Your task to perform on an android device: Show me popular games on the Play Store Image 0: 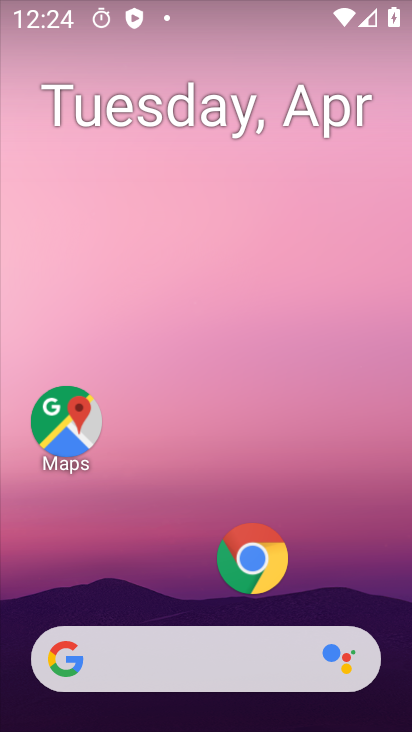
Step 0: drag from (192, 601) to (232, 119)
Your task to perform on an android device: Show me popular games on the Play Store Image 1: 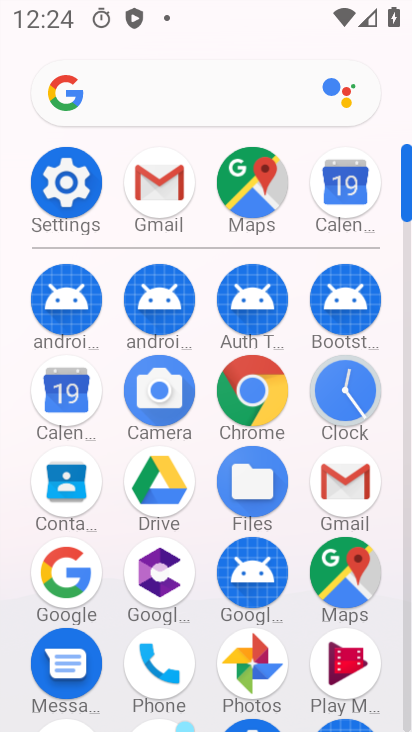
Step 1: drag from (192, 644) to (212, 301)
Your task to perform on an android device: Show me popular games on the Play Store Image 2: 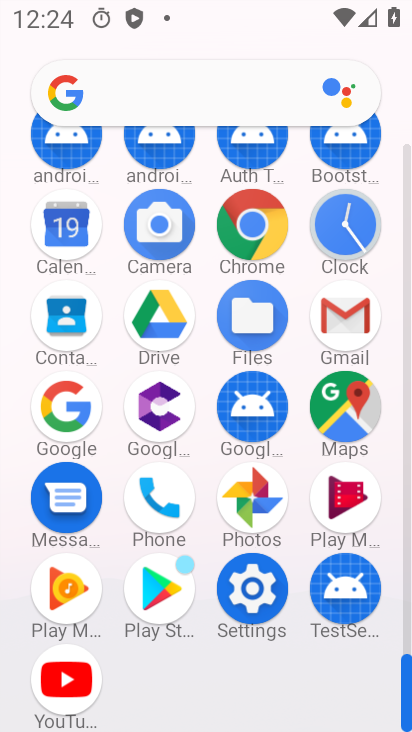
Step 2: click (170, 596)
Your task to perform on an android device: Show me popular games on the Play Store Image 3: 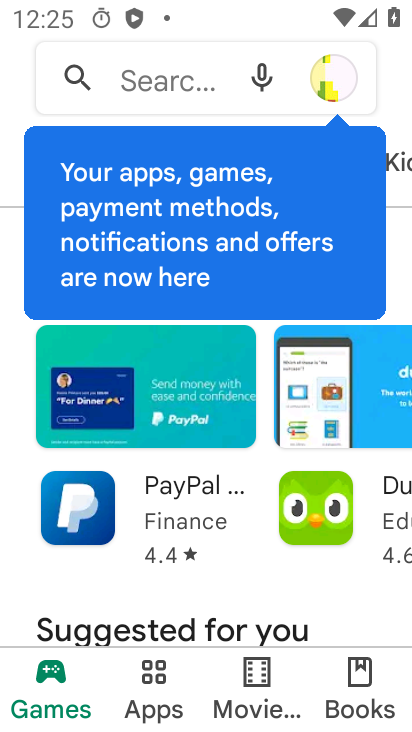
Step 3: drag from (234, 605) to (238, 347)
Your task to perform on an android device: Show me popular games on the Play Store Image 4: 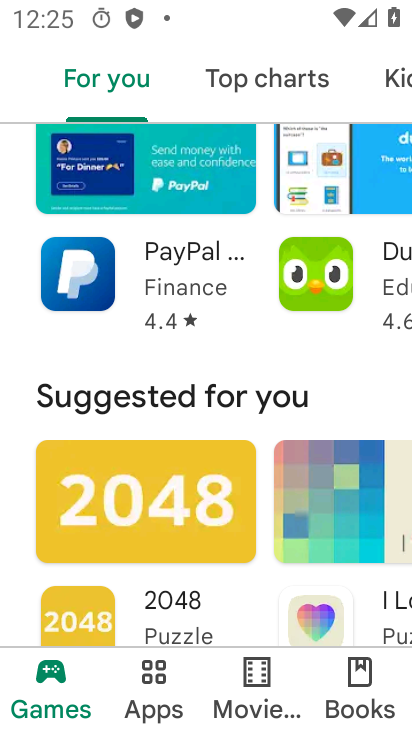
Step 4: drag from (209, 598) to (227, 280)
Your task to perform on an android device: Show me popular games on the Play Store Image 5: 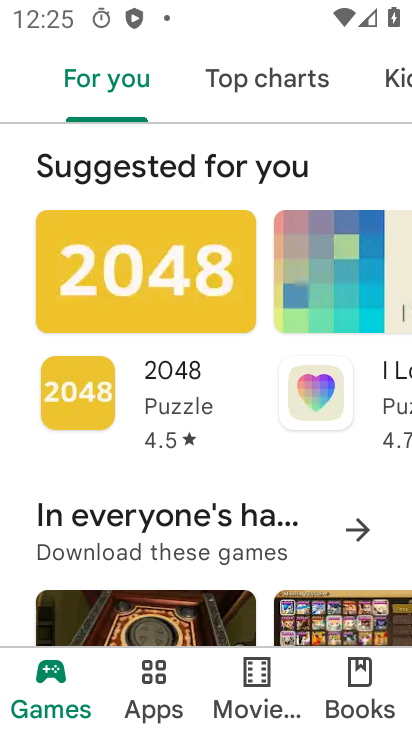
Step 5: drag from (236, 573) to (242, 306)
Your task to perform on an android device: Show me popular games on the Play Store Image 6: 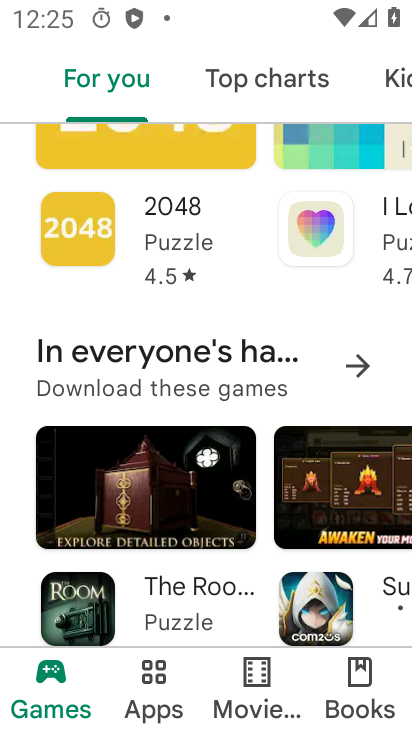
Step 6: drag from (244, 623) to (260, 339)
Your task to perform on an android device: Show me popular games on the Play Store Image 7: 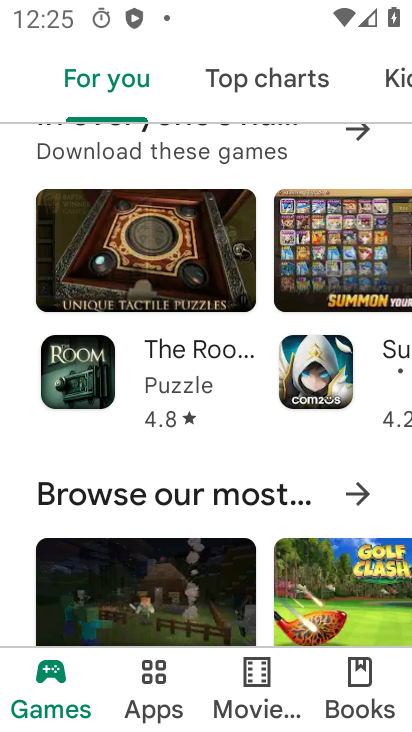
Step 7: drag from (180, 606) to (203, 333)
Your task to perform on an android device: Show me popular games on the Play Store Image 8: 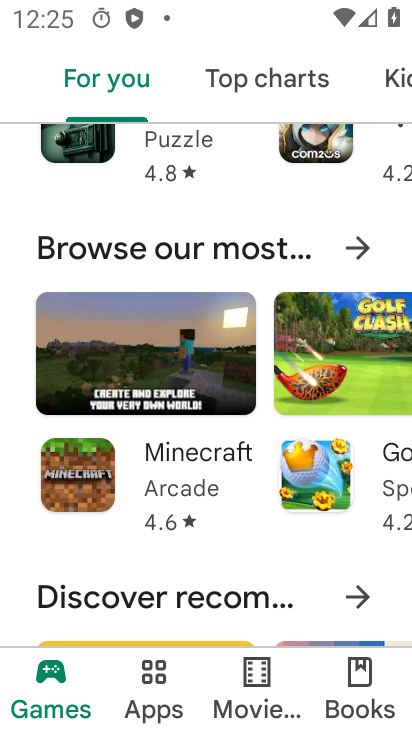
Step 8: drag from (196, 180) to (224, 441)
Your task to perform on an android device: Show me popular games on the Play Store Image 9: 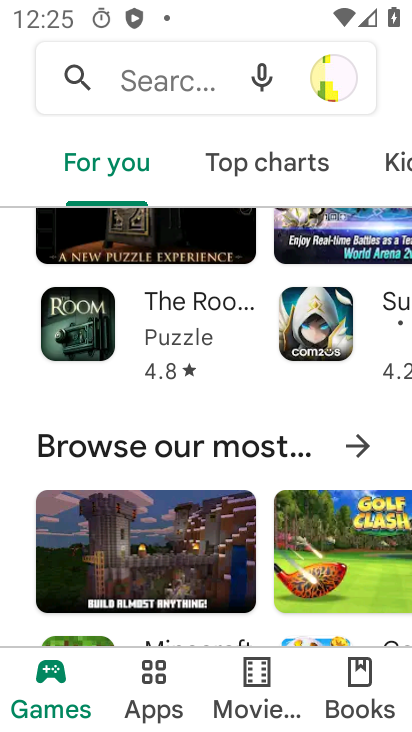
Step 9: click (154, 78)
Your task to perform on an android device: Show me popular games on the Play Store Image 10: 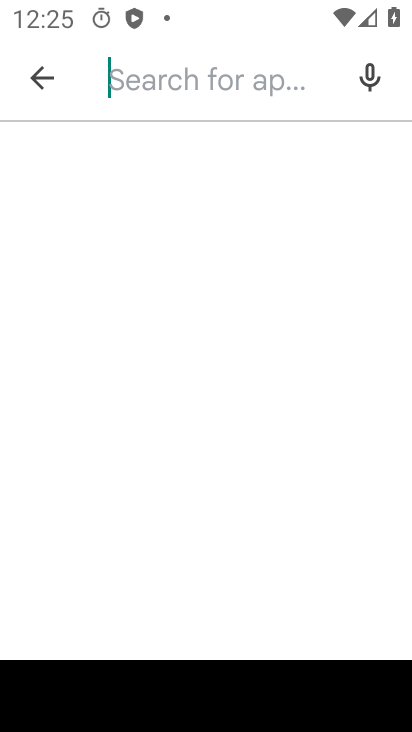
Step 10: type "Popular games"
Your task to perform on an android device: Show me popular games on the Play Store Image 11: 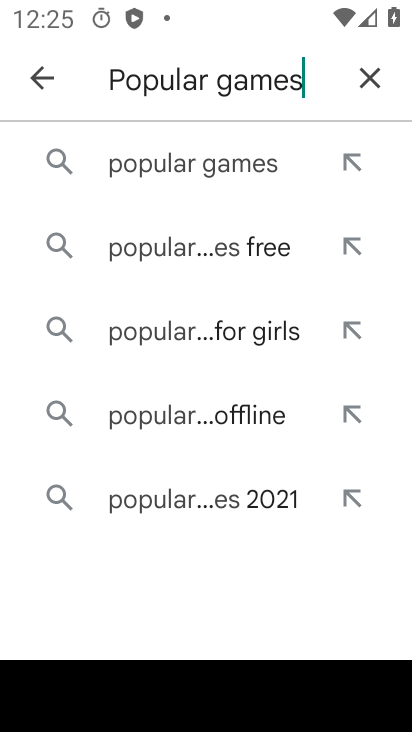
Step 11: click (239, 173)
Your task to perform on an android device: Show me popular games on the Play Store Image 12: 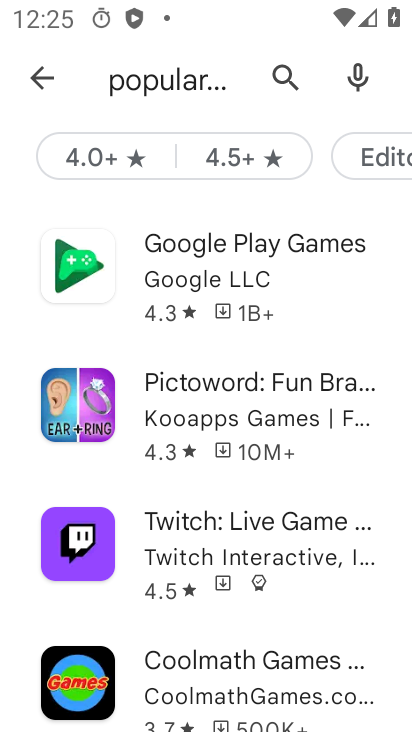
Step 12: task complete